Your task to perform on an android device: What's the weather like in San Francisco? Image 0: 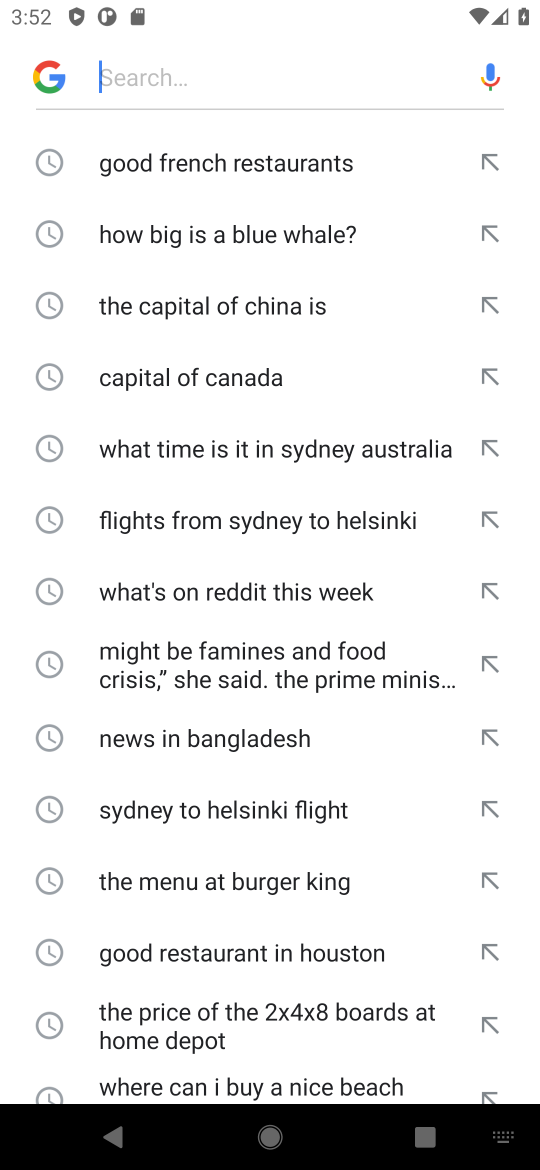
Step 0: type "What's the weather like in San Francisco?"
Your task to perform on an android device: What's the weather like in San Francisco? Image 1: 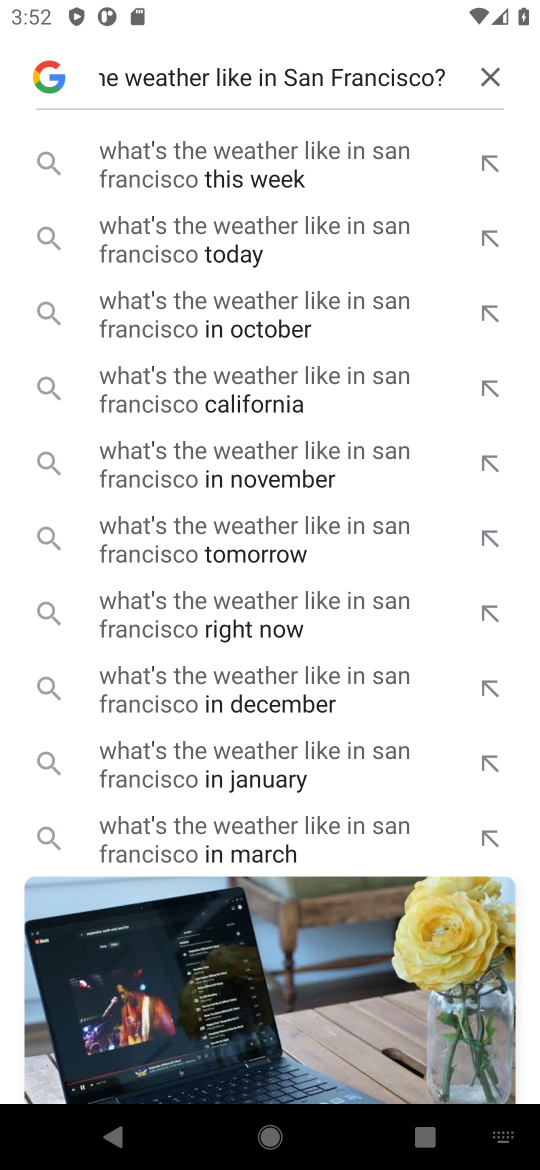
Step 1: press enter
Your task to perform on an android device: What's the weather like in San Francisco? Image 2: 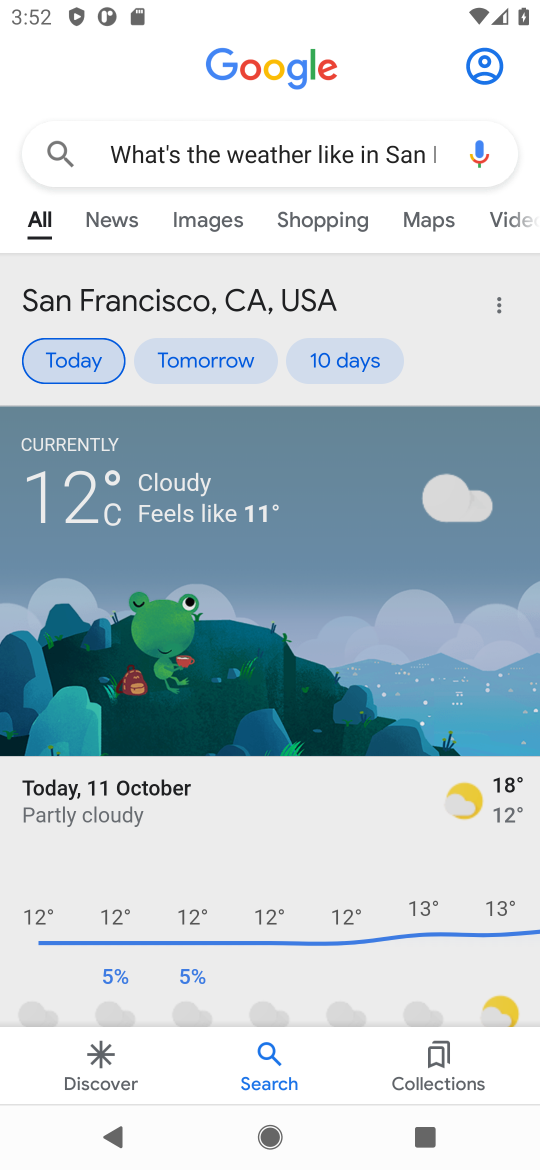
Step 2: task complete